Your task to perform on an android device: refresh tabs in the chrome app Image 0: 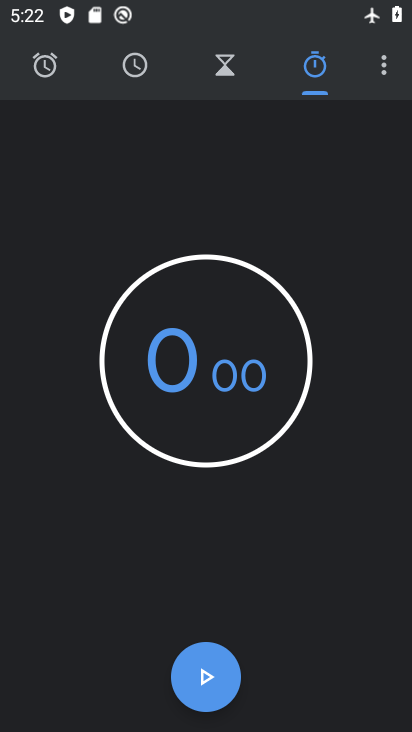
Step 0: press home button
Your task to perform on an android device: refresh tabs in the chrome app Image 1: 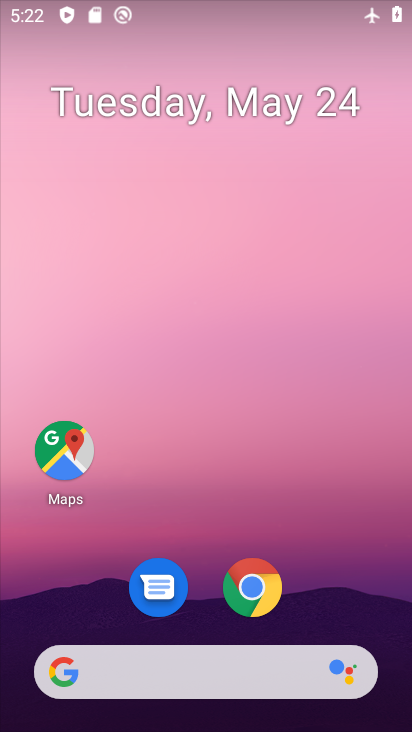
Step 1: click (269, 579)
Your task to perform on an android device: refresh tabs in the chrome app Image 2: 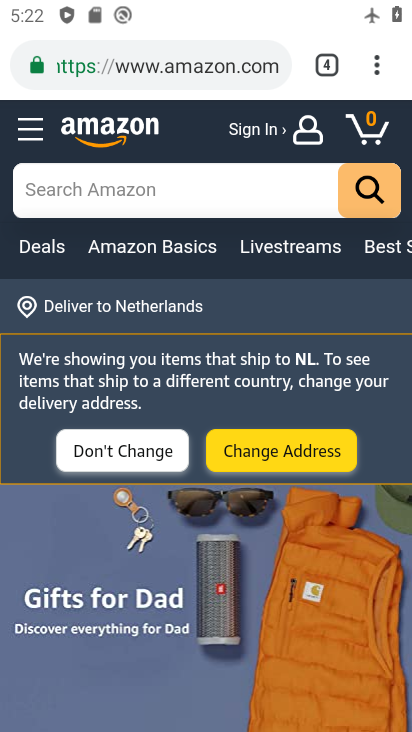
Step 2: click (380, 54)
Your task to perform on an android device: refresh tabs in the chrome app Image 3: 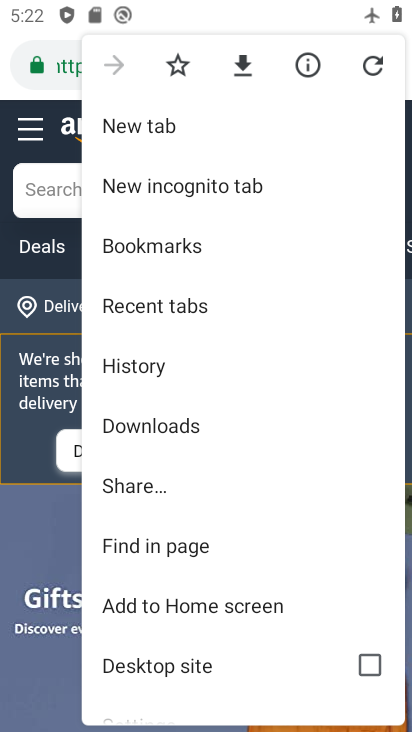
Step 3: click (375, 71)
Your task to perform on an android device: refresh tabs in the chrome app Image 4: 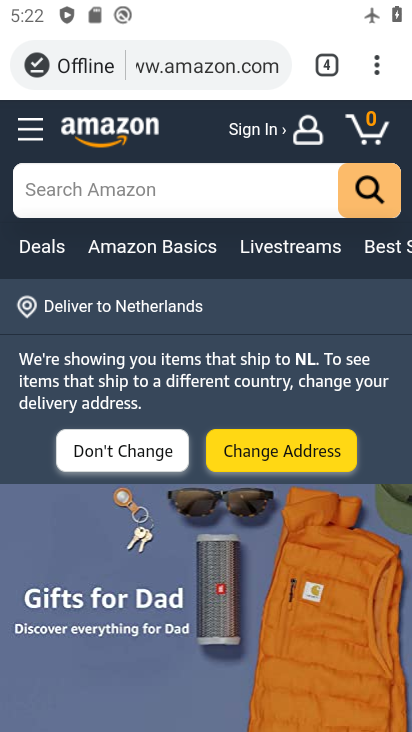
Step 4: task complete